Your task to perform on an android device: Open battery settings Image 0: 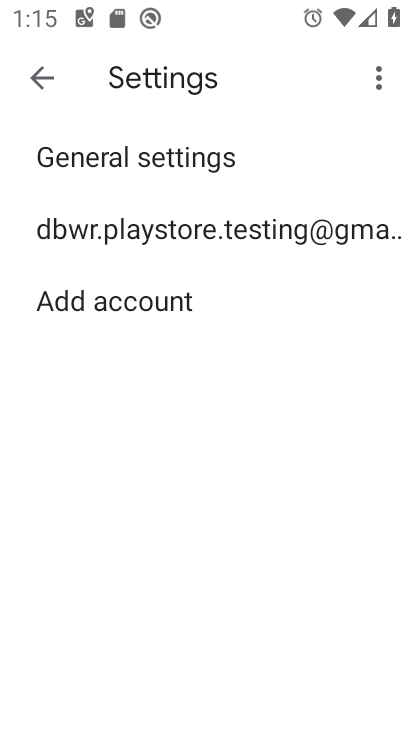
Step 0: press home button
Your task to perform on an android device: Open battery settings Image 1: 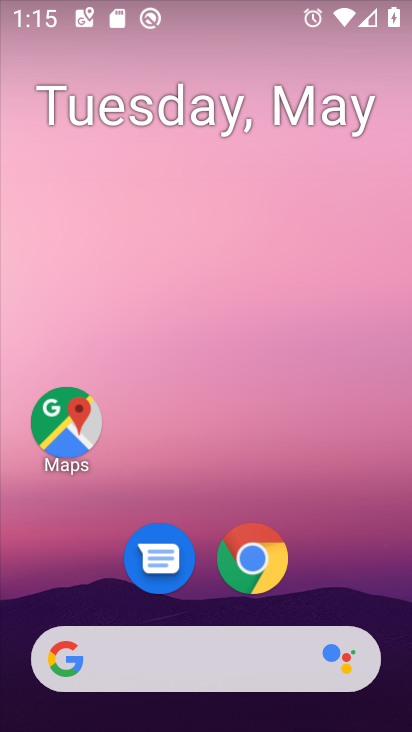
Step 1: drag from (354, 593) to (346, 145)
Your task to perform on an android device: Open battery settings Image 2: 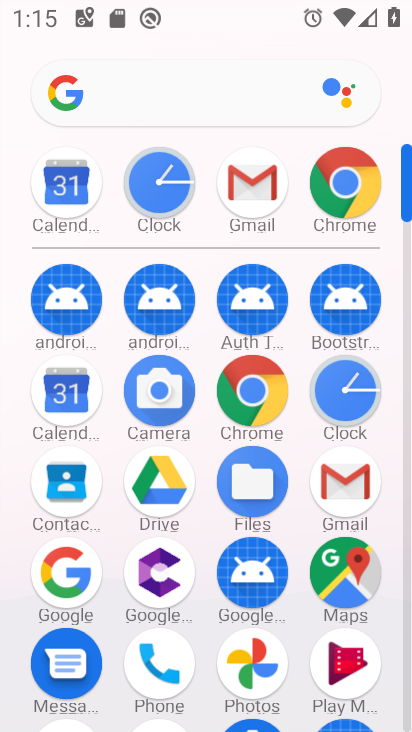
Step 2: click (405, 724)
Your task to perform on an android device: Open battery settings Image 3: 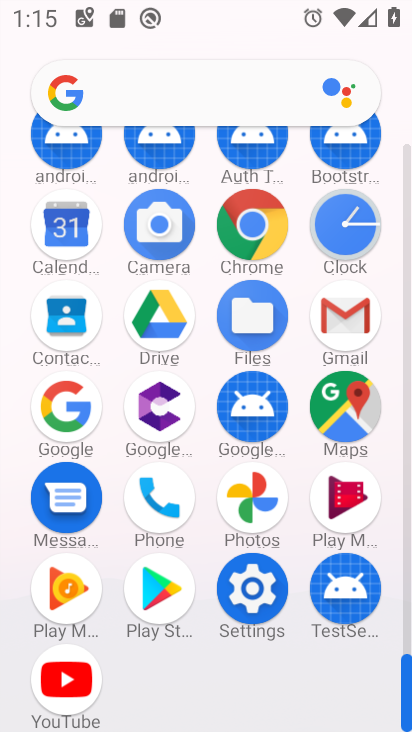
Step 3: click (261, 599)
Your task to perform on an android device: Open battery settings Image 4: 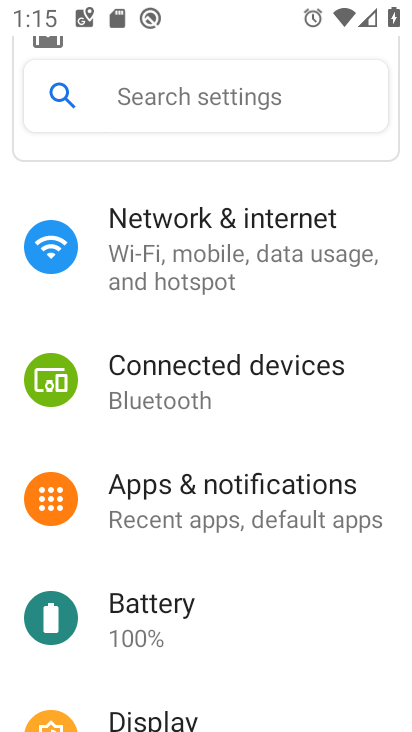
Step 4: click (261, 641)
Your task to perform on an android device: Open battery settings Image 5: 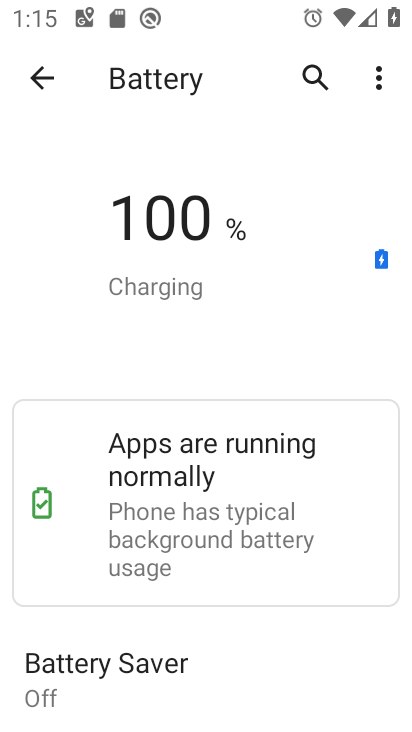
Step 5: task complete